Your task to perform on an android device: Open calendar and show me the fourth week of next month Image 0: 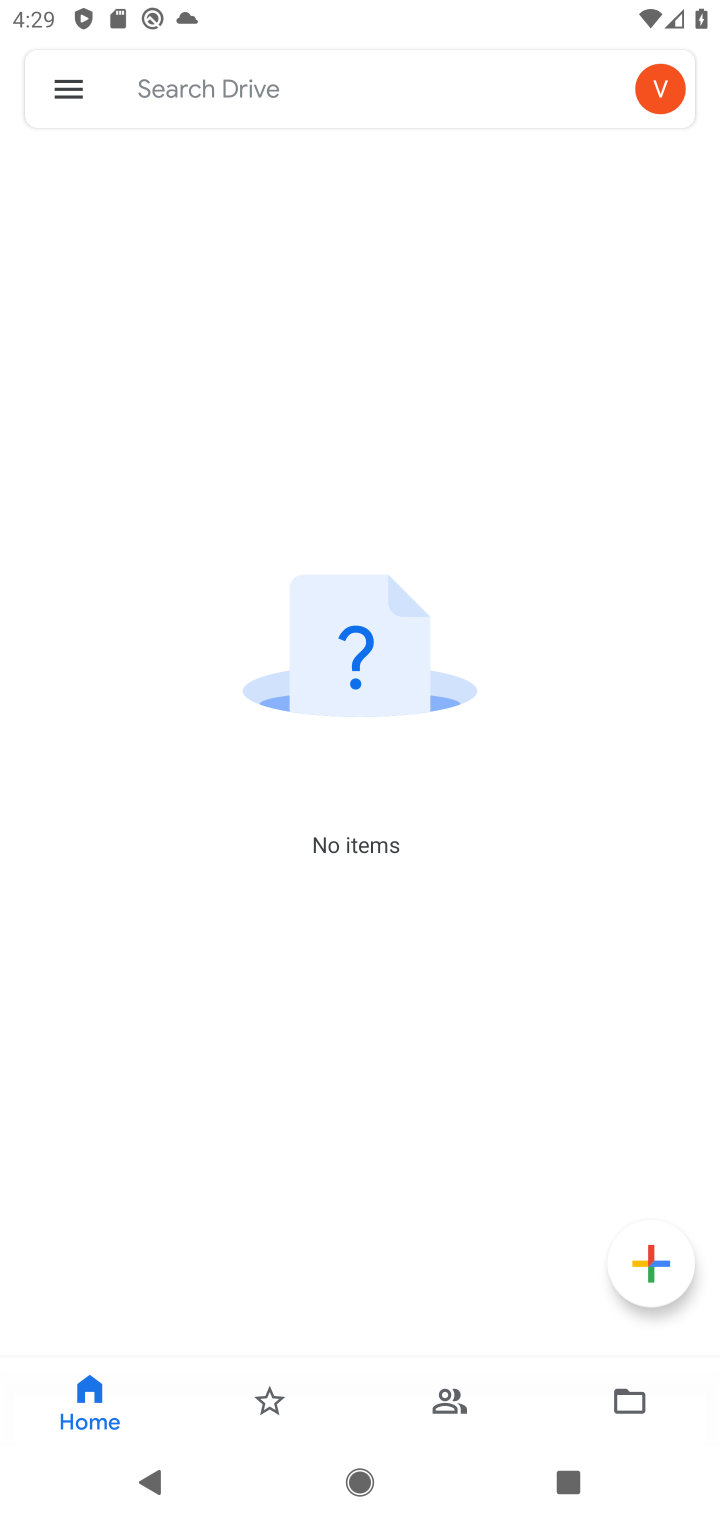
Step 0: press back button
Your task to perform on an android device: Open calendar and show me the fourth week of next month Image 1: 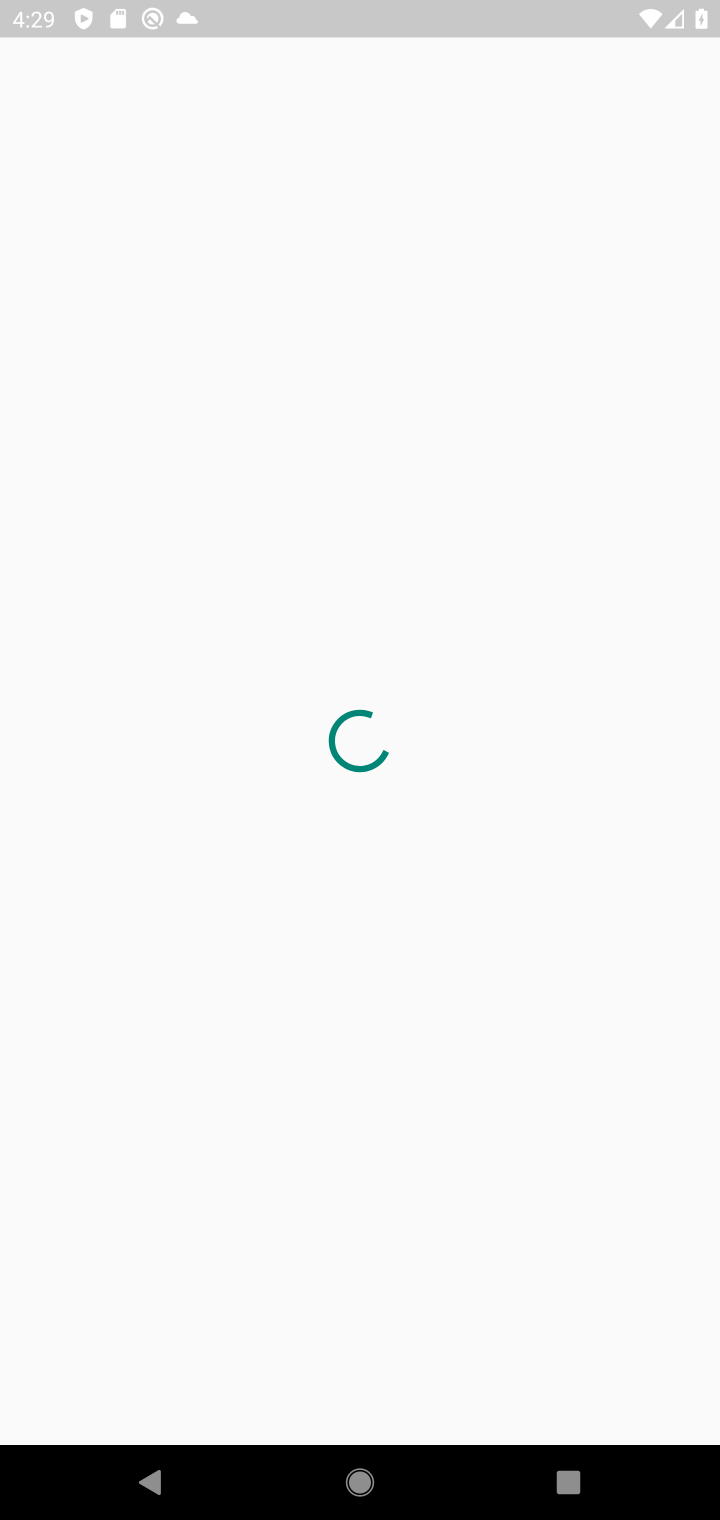
Step 1: press back button
Your task to perform on an android device: Open calendar and show me the fourth week of next month Image 2: 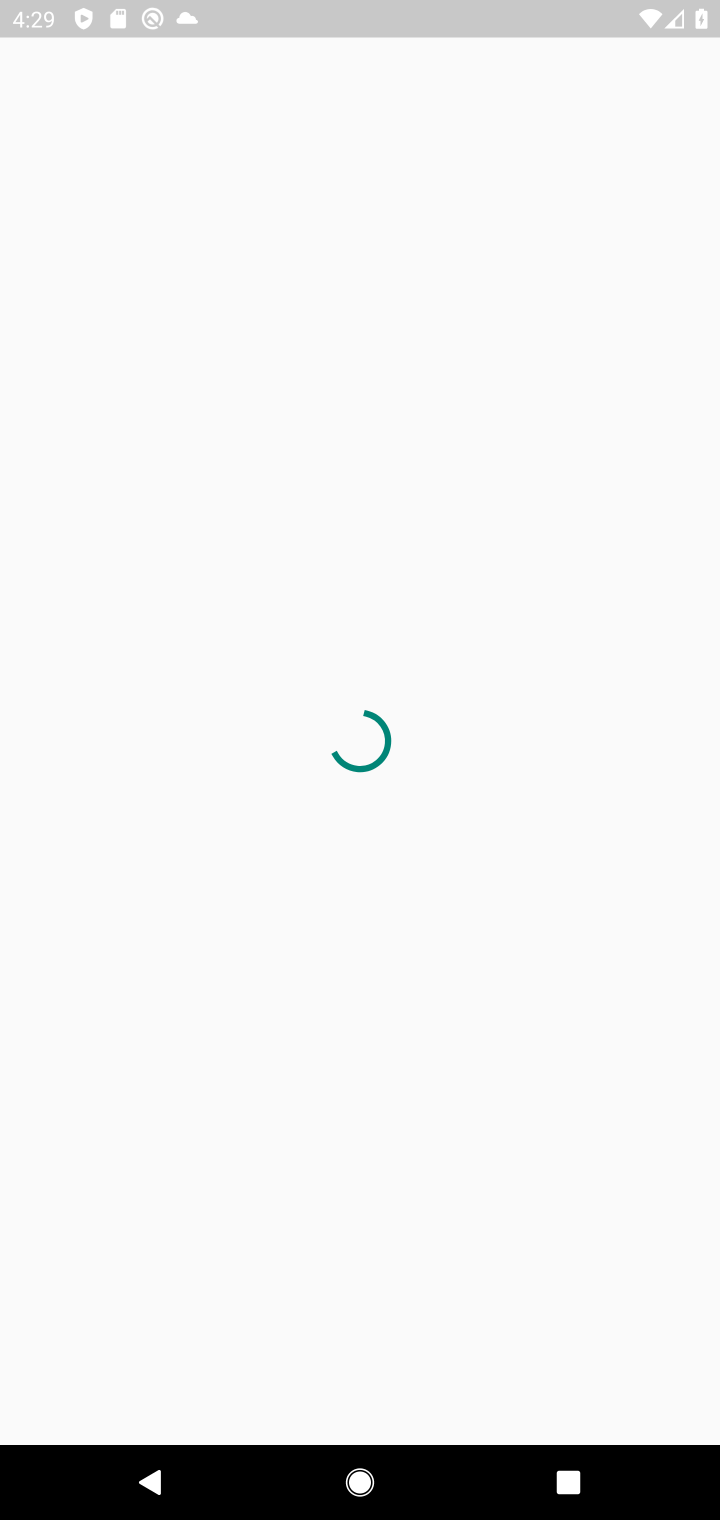
Step 2: press home button
Your task to perform on an android device: Open calendar and show me the fourth week of next month Image 3: 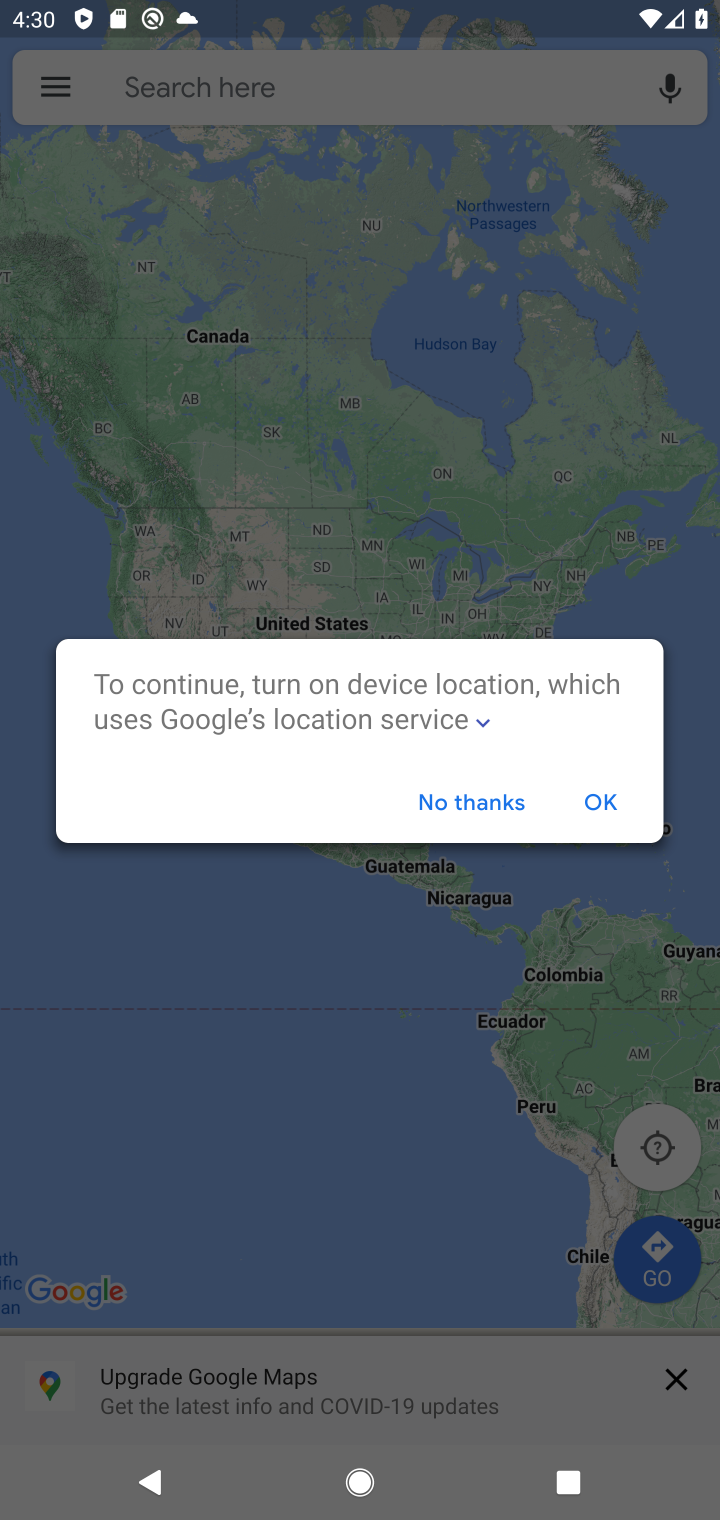
Step 3: press home button
Your task to perform on an android device: Open calendar and show me the fourth week of next month Image 4: 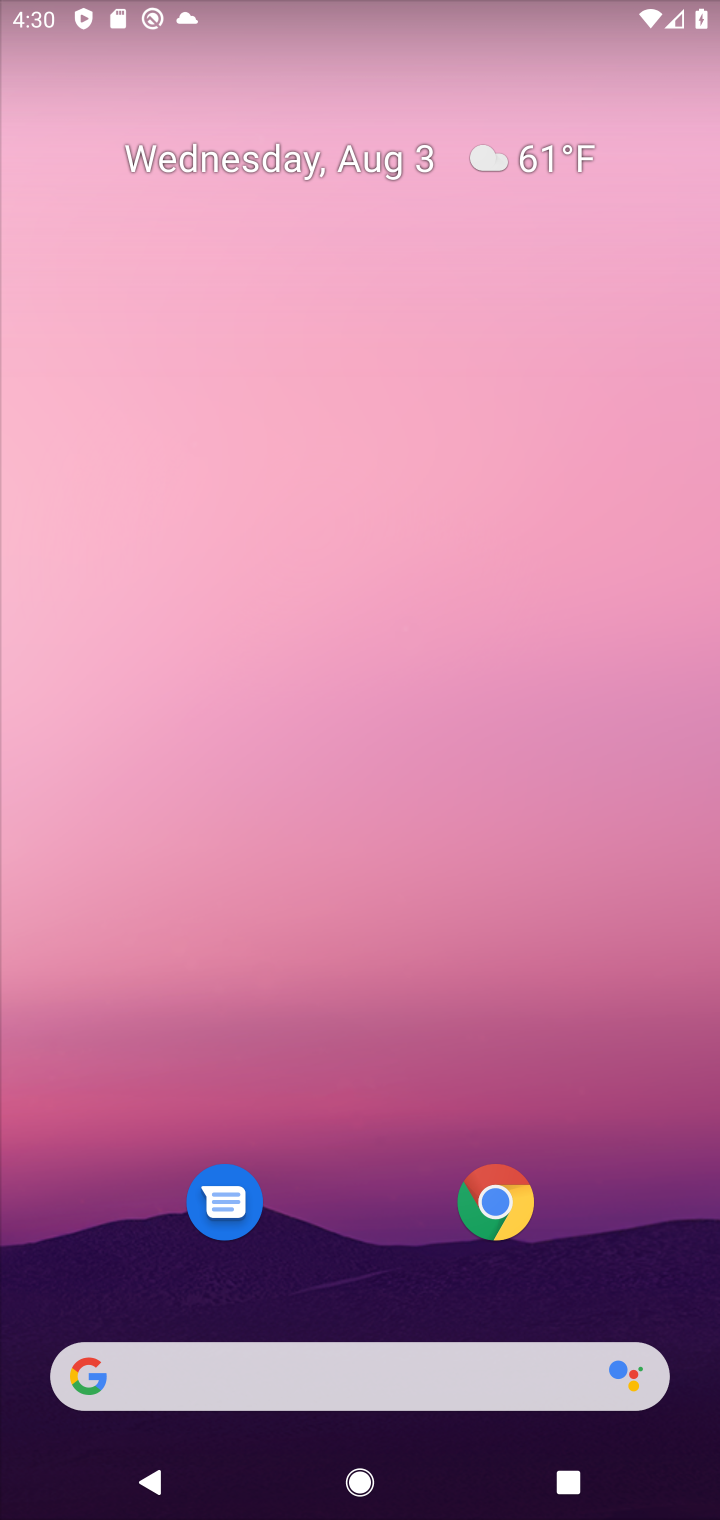
Step 4: drag from (403, 1003) to (607, 28)
Your task to perform on an android device: Open calendar and show me the fourth week of next month Image 5: 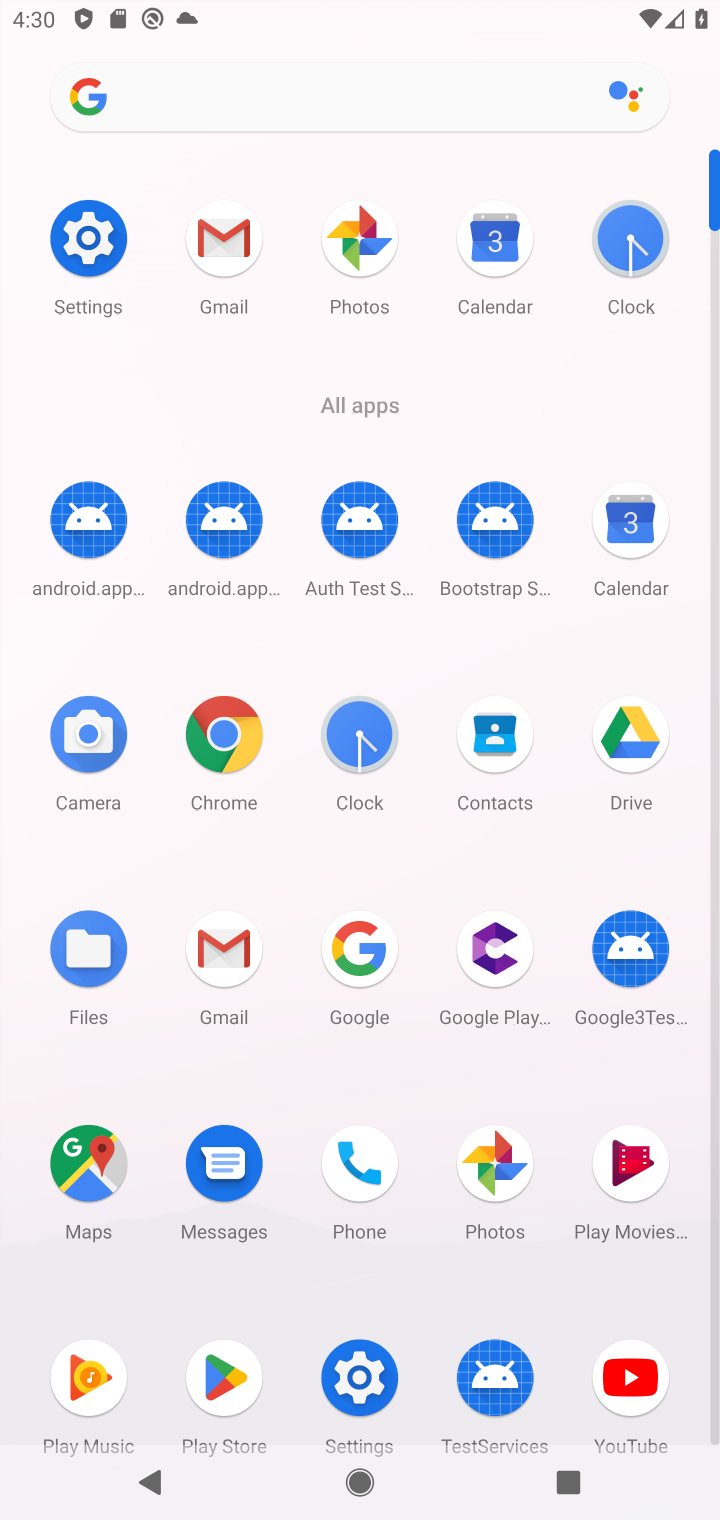
Step 5: click (638, 520)
Your task to perform on an android device: Open calendar and show me the fourth week of next month Image 6: 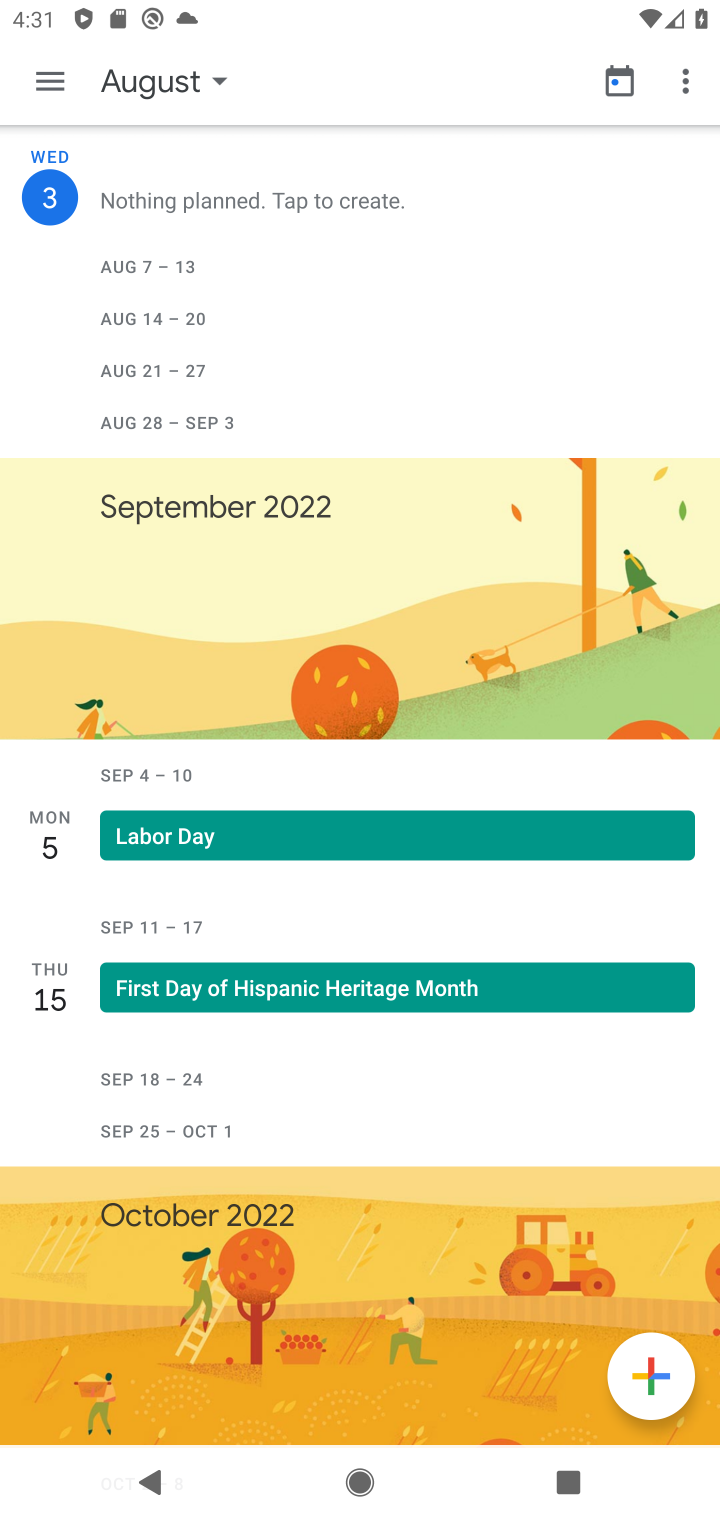
Step 6: click (212, 53)
Your task to perform on an android device: Open calendar and show me the fourth week of next month Image 7: 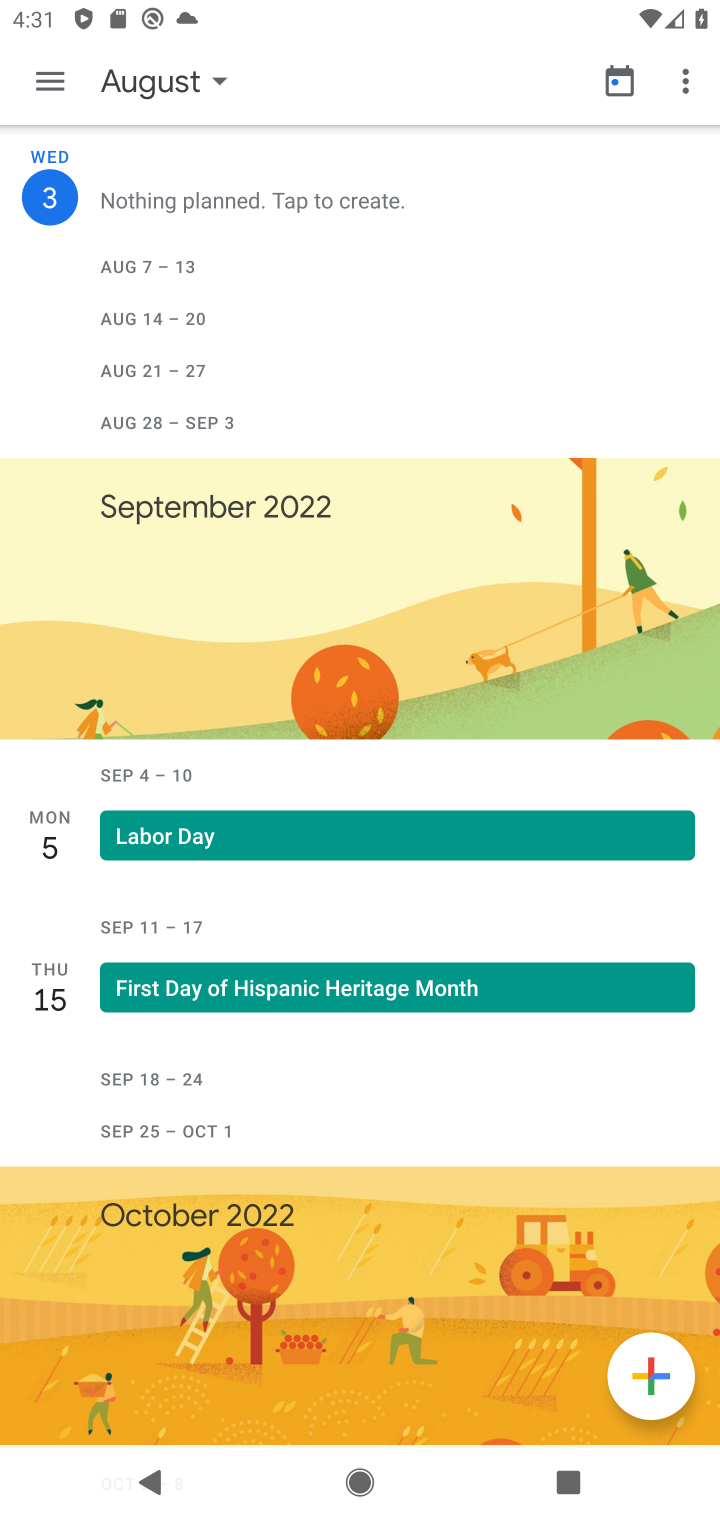
Step 7: click (219, 90)
Your task to perform on an android device: Open calendar and show me the fourth week of next month Image 8: 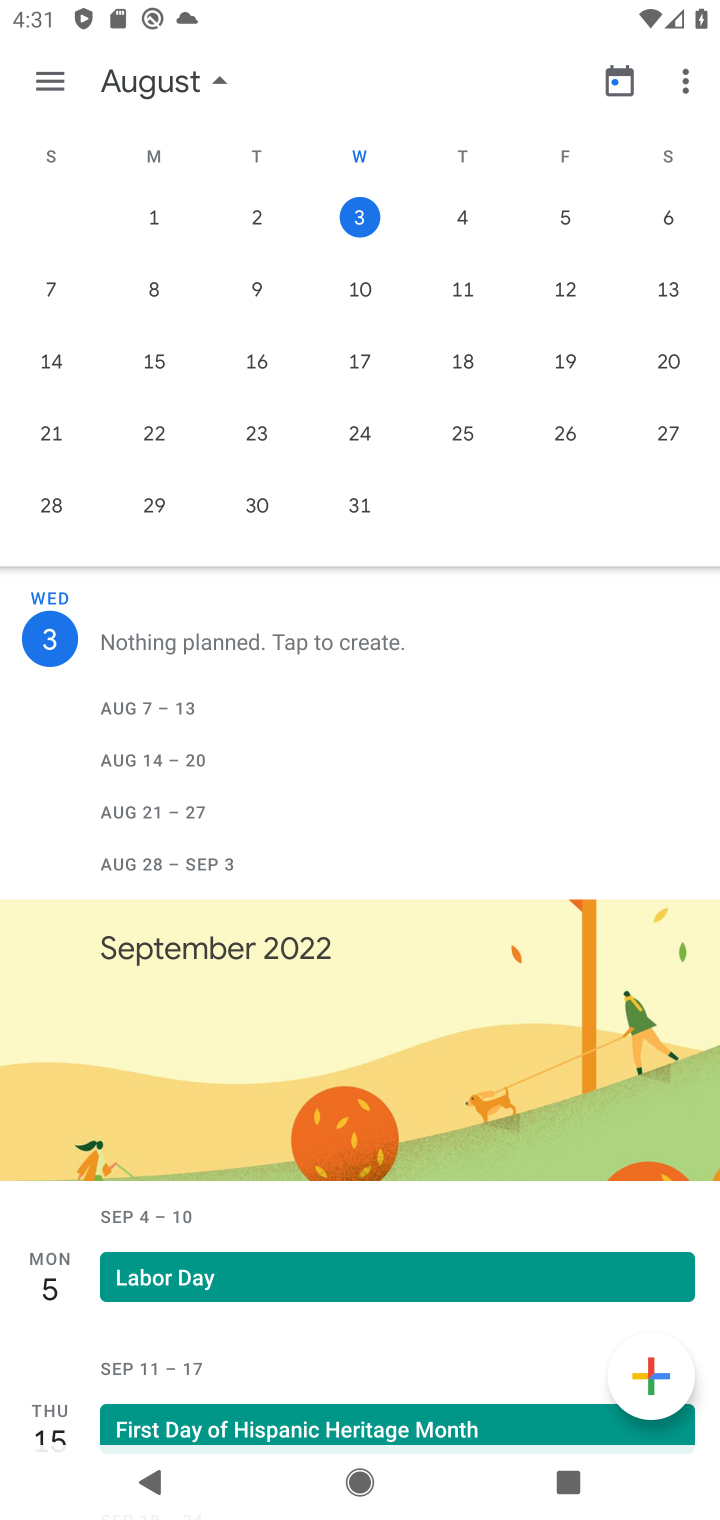
Step 8: drag from (662, 353) to (12, 472)
Your task to perform on an android device: Open calendar and show me the fourth week of next month Image 9: 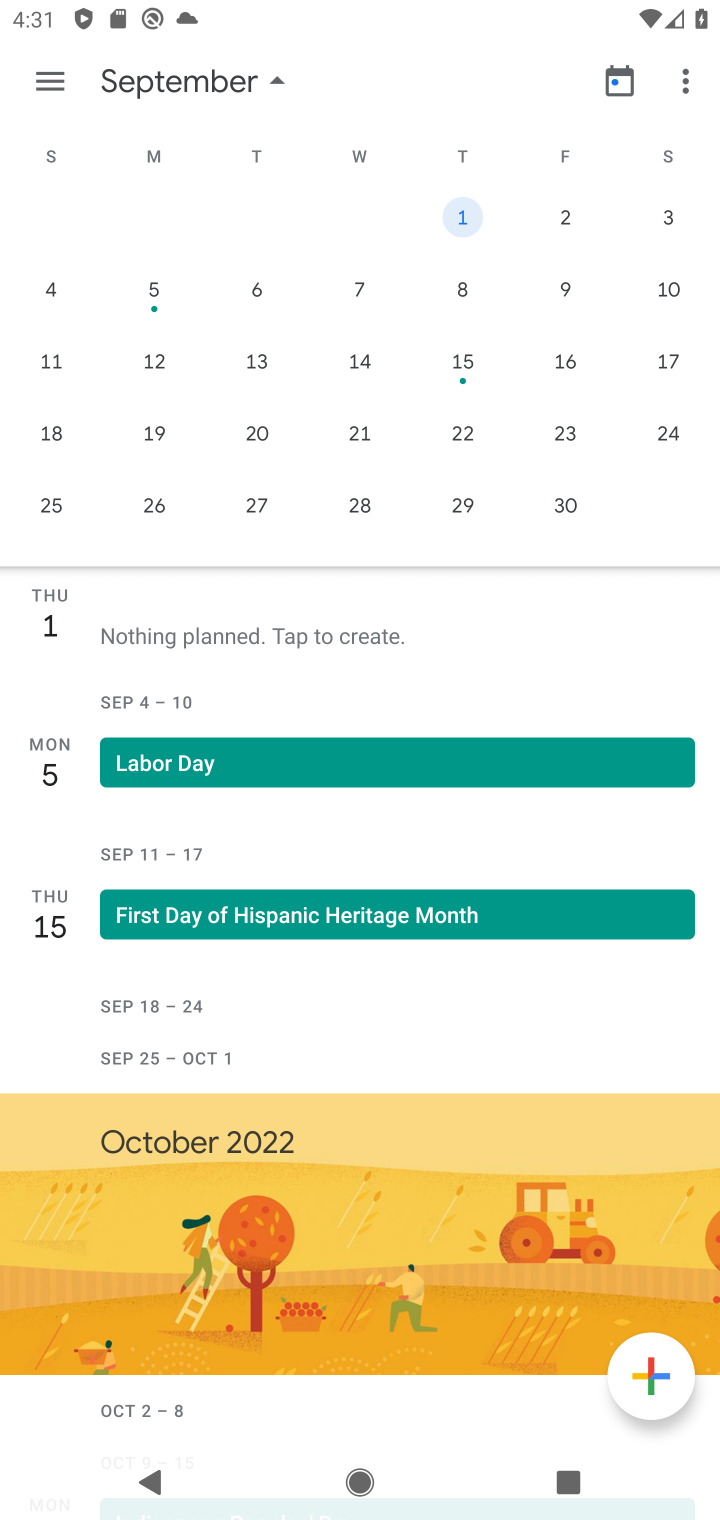
Step 9: drag from (667, 352) to (104, 343)
Your task to perform on an android device: Open calendar and show me the fourth week of next month Image 10: 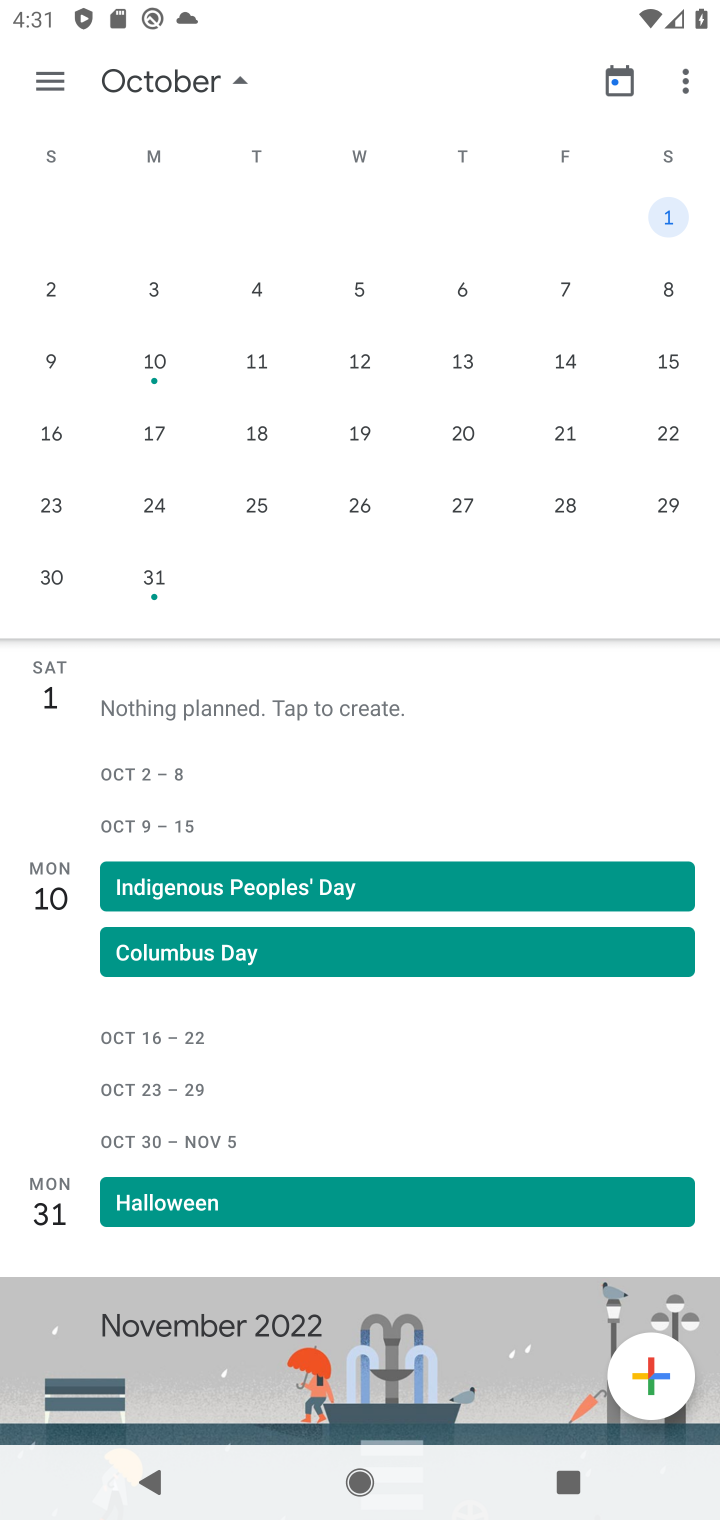
Step 10: drag from (48, 438) to (695, 427)
Your task to perform on an android device: Open calendar and show me the fourth week of next month Image 11: 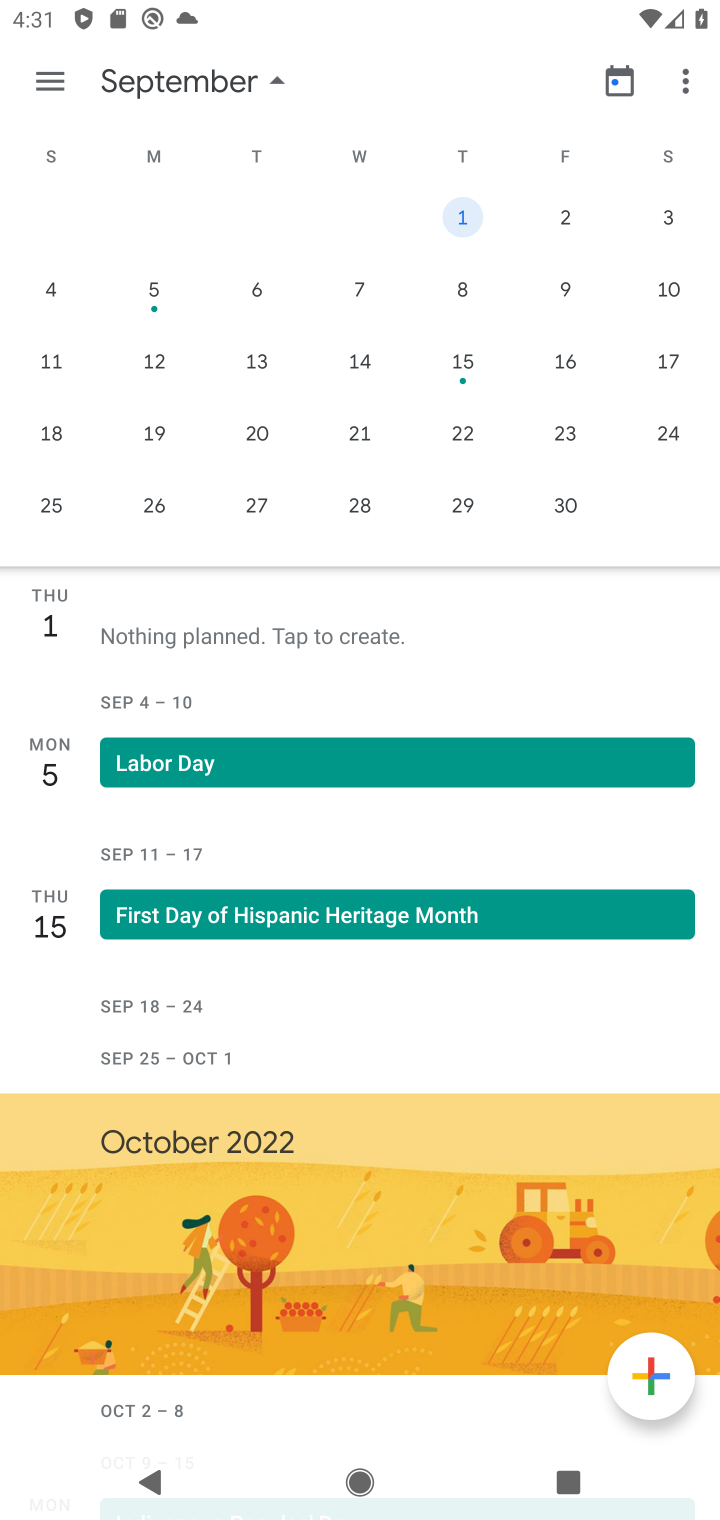
Step 11: click (156, 443)
Your task to perform on an android device: Open calendar and show me the fourth week of next month Image 12: 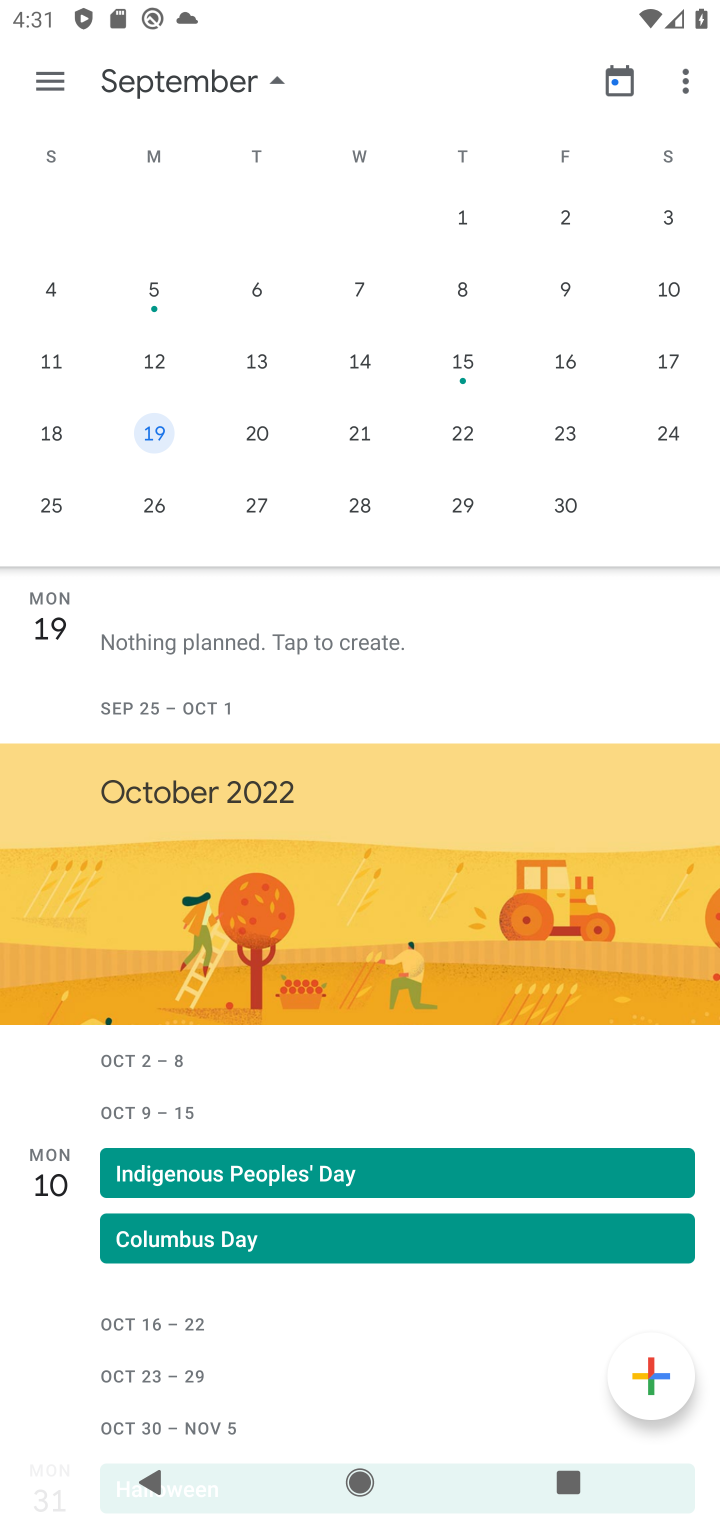
Step 12: task complete